Your task to perform on an android device: visit the assistant section in the google photos Image 0: 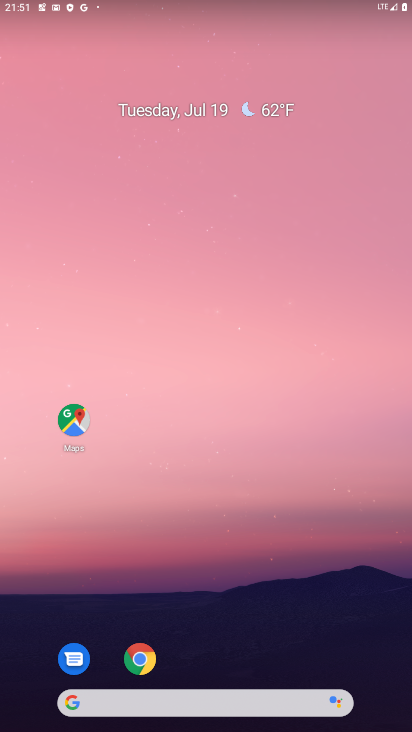
Step 0: drag from (247, 632) to (268, 61)
Your task to perform on an android device: visit the assistant section in the google photos Image 1: 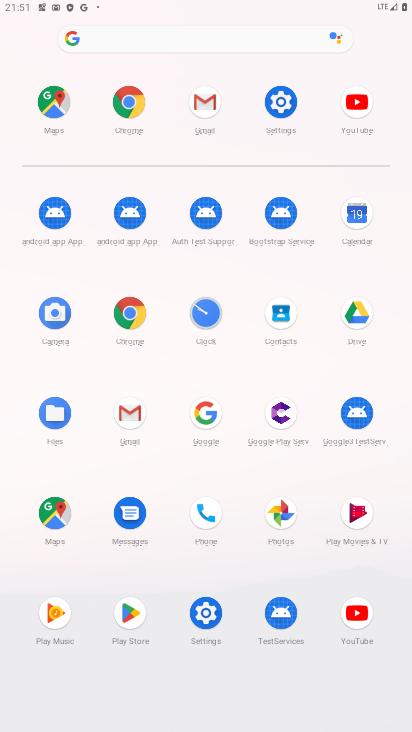
Step 1: click (276, 514)
Your task to perform on an android device: visit the assistant section in the google photos Image 2: 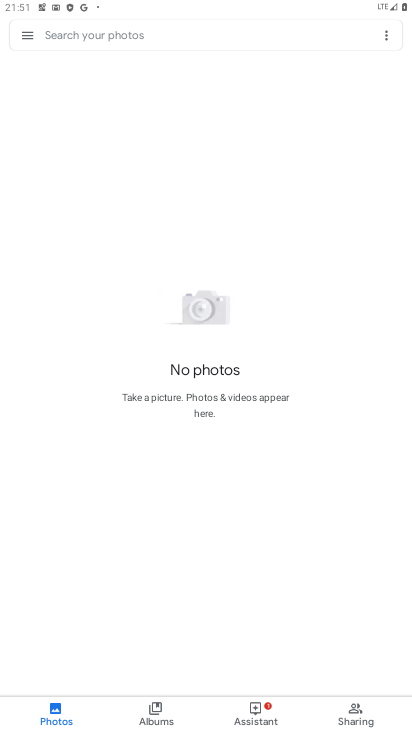
Step 2: click (253, 715)
Your task to perform on an android device: visit the assistant section in the google photos Image 3: 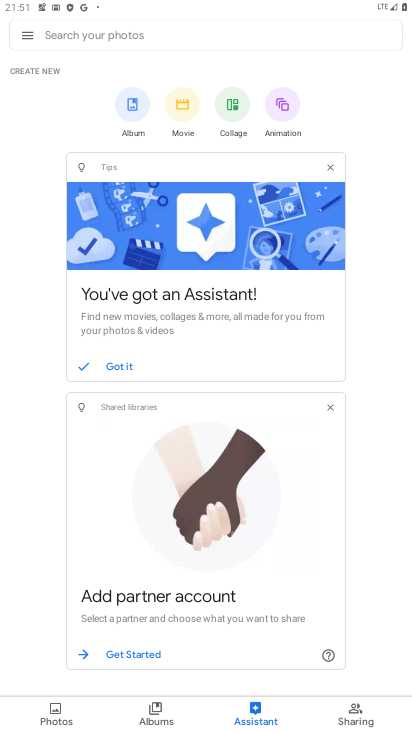
Step 3: task complete